Your task to perform on an android device: refresh tabs in the chrome app Image 0: 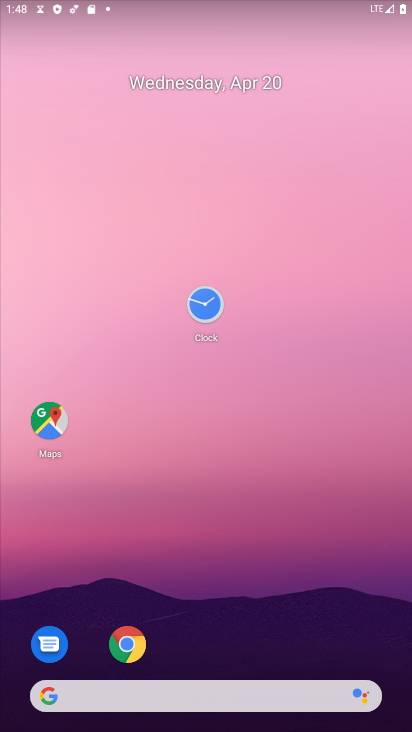
Step 0: drag from (306, 654) to (275, 41)
Your task to perform on an android device: refresh tabs in the chrome app Image 1: 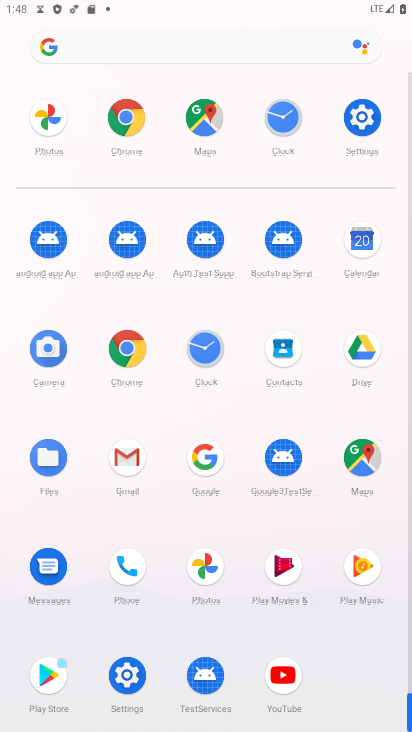
Step 1: click (131, 350)
Your task to perform on an android device: refresh tabs in the chrome app Image 2: 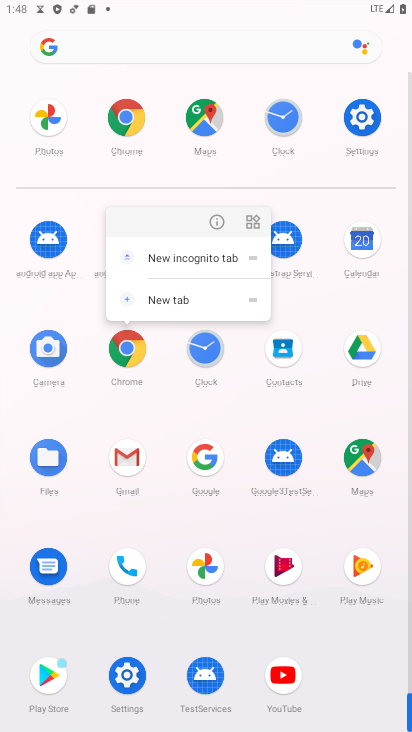
Step 2: click (125, 350)
Your task to perform on an android device: refresh tabs in the chrome app Image 3: 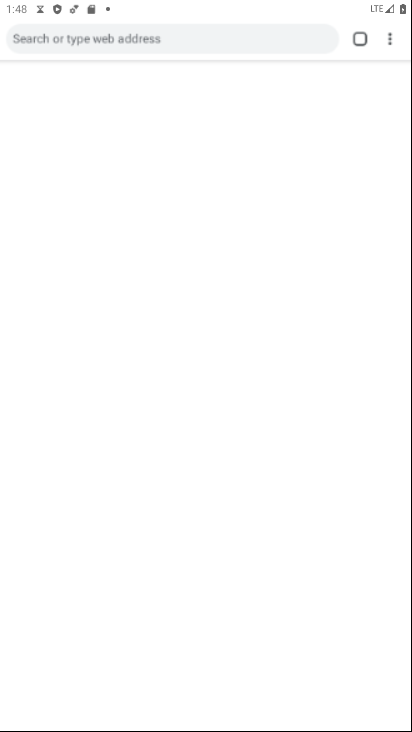
Step 3: click (390, 35)
Your task to perform on an android device: refresh tabs in the chrome app Image 4: 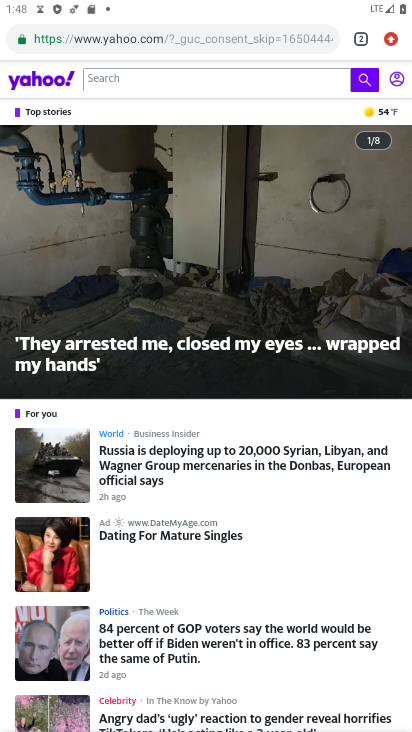
Step 4: click (387, 39)
Your task to perform on an android device: refresh tabs in the chrome app Image 5: 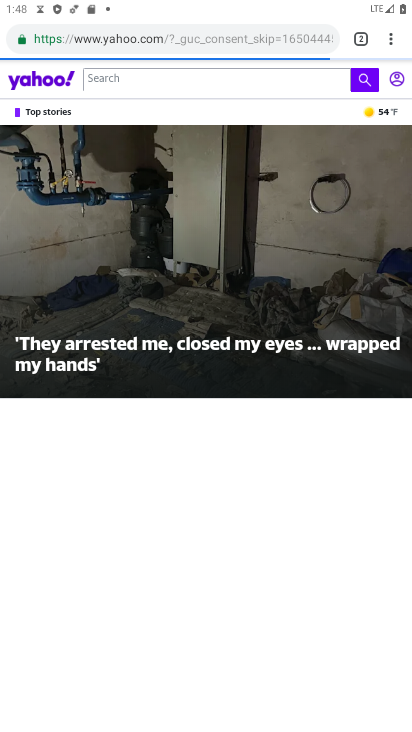
Step 5: click (387, 40)
Your task to perform on an android device: refresh tabs in the chrome app Image 6: 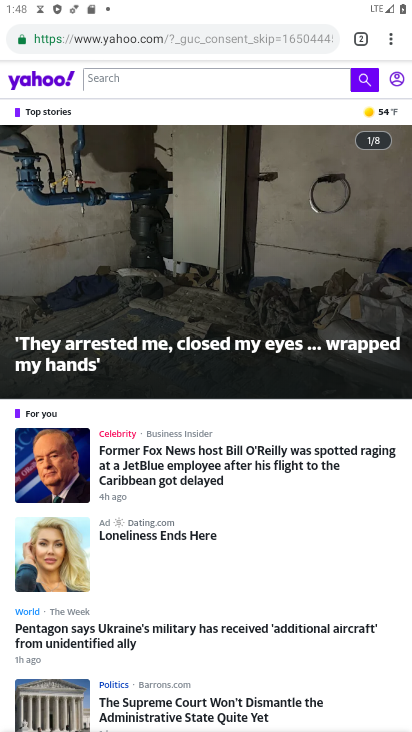
Step 6: click (387, 40)
Your task to perform on an android device: refresh tabs in the chrome app Image 7: 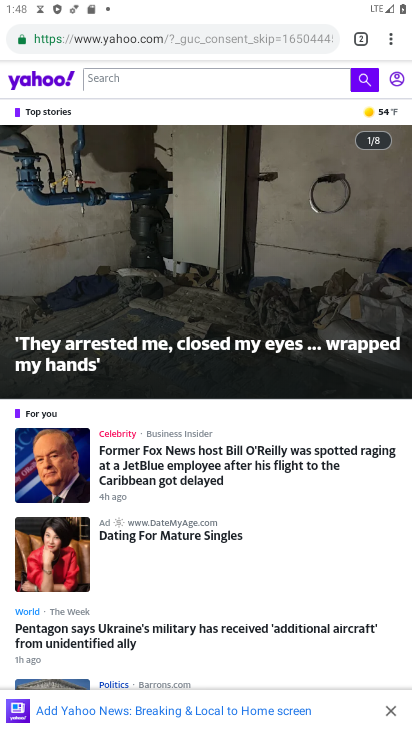
Step 7: task complete